Your task to perform on an android device: Open the stopwatch Image 0: 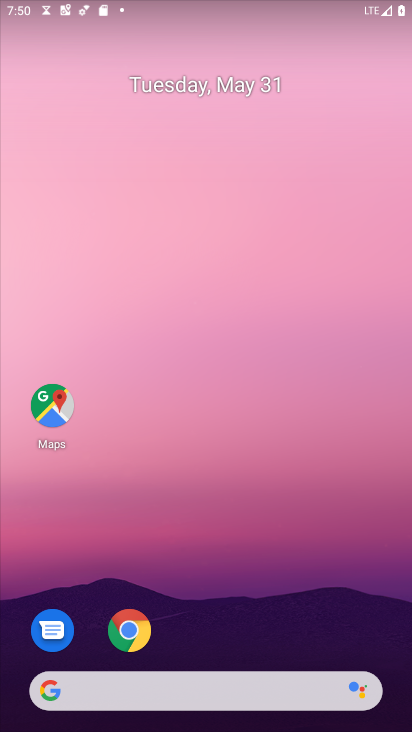
Step 0: drag from (243, 632) to (233, 55)
Your task to perform on an android device: Open the stopwatch Image 1: 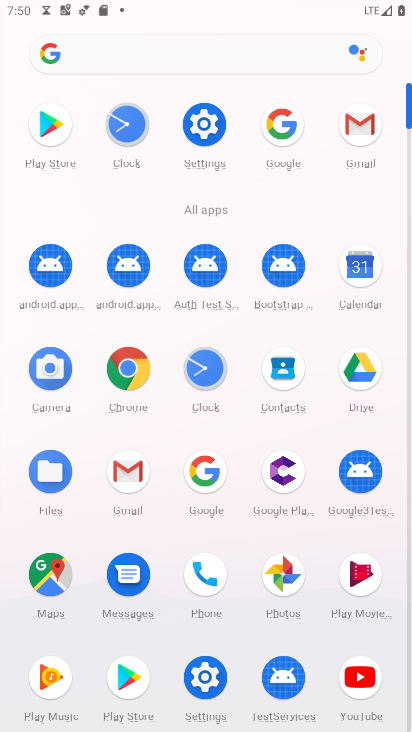
Step 1: click (128, 125)
Your task to perform on an android device: Open the stopwatch Image 2: 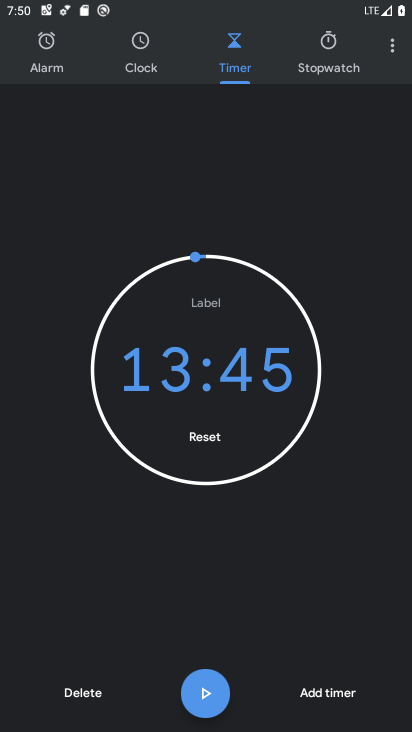
Step 2: click (327, 43)
Your task to perform on an android device: Open the stopwatch Image 3: 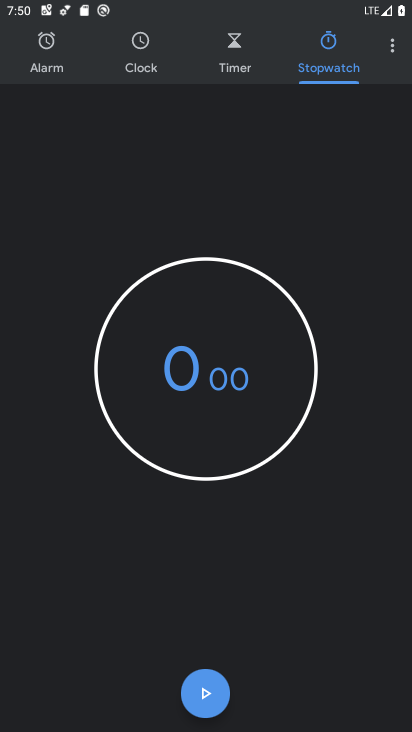
Step 3: task complete